Your task to perform on an android device: Play the last video I watched on Youtube Image 0: 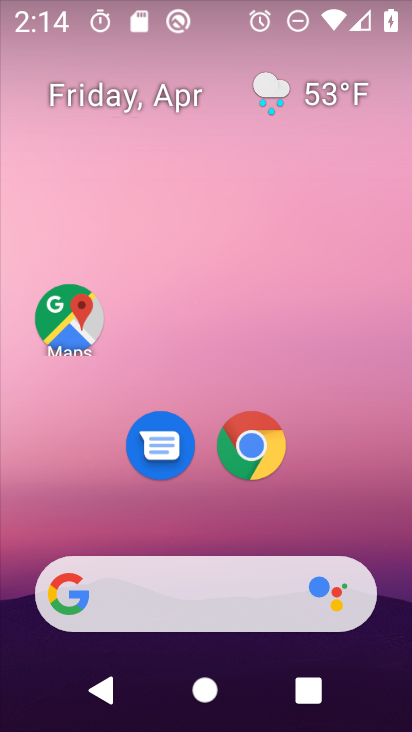
Step 0: drag from (355, 511) to (373, 120)
Your task to perform on an android device: Play the last video I watched on Youtube Image 1: 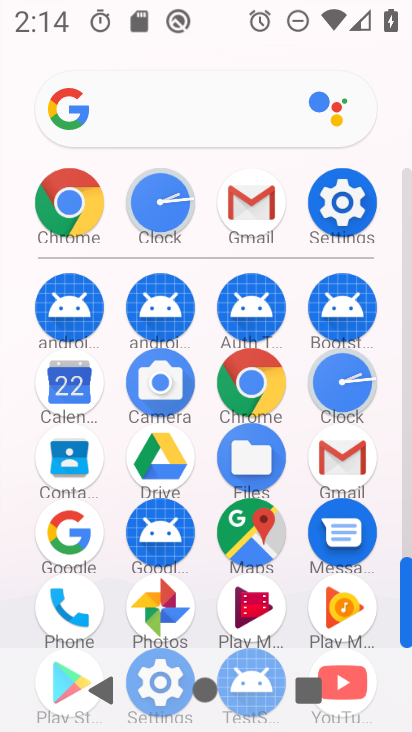
Step 1: drag from (392, 528) to (403, 269)
Your task to perform on an android device: Play the last video I watched on Youtube Image 2: 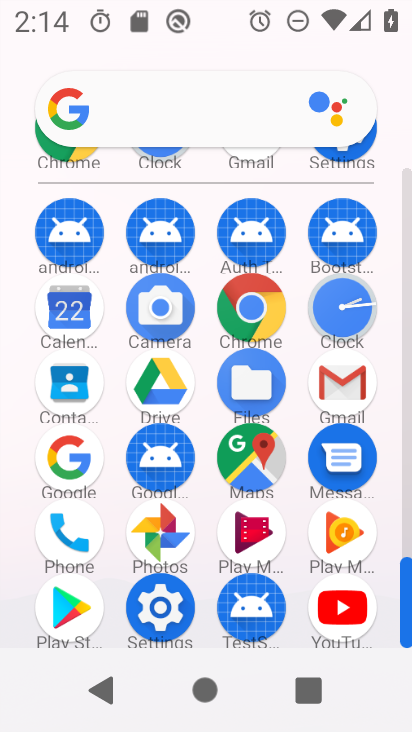
Step 2: click (351, 613)
Your task to perform on an android device: Play the last video I watched on Youtube Image 3: 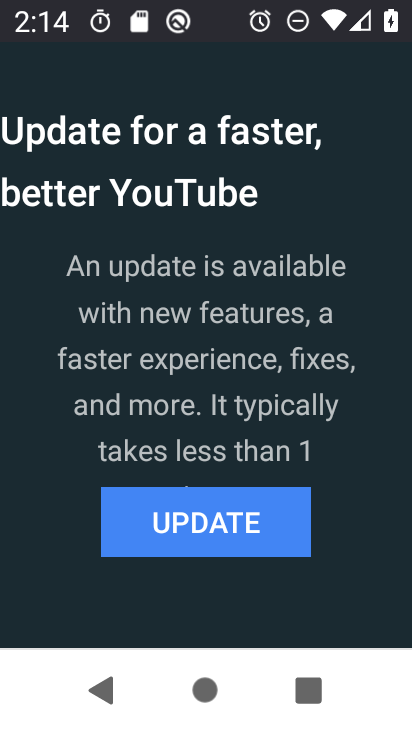
Step 3: click (239, 545)
Your task to perform on an android device: Play the last video I watched on Youtube Image 4: 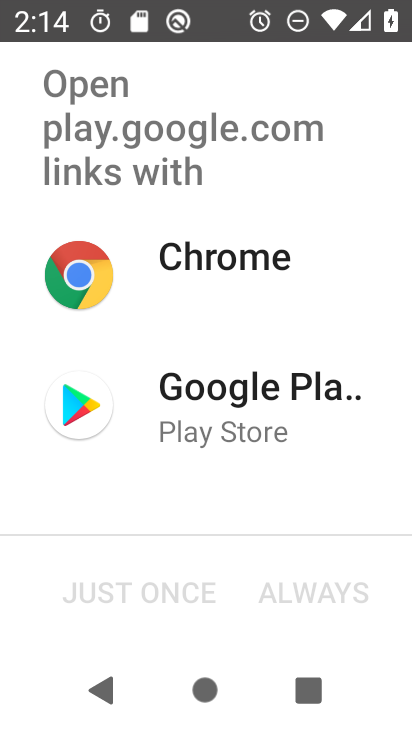
Step 4: click (248, 429)
Your task to perform on an android device: Play the last video I watched on Youtube Image 5: 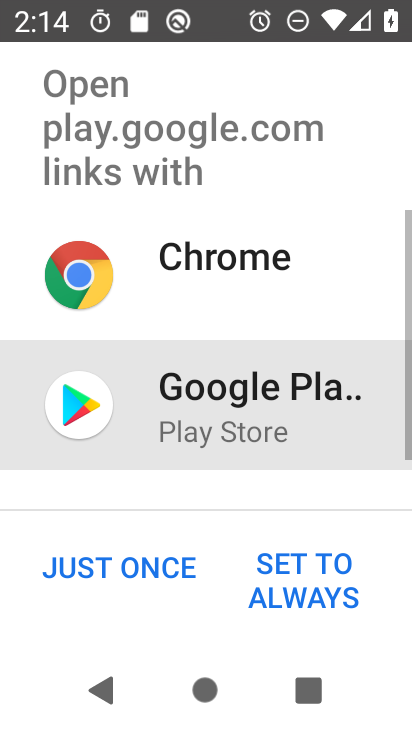
Step 5: click (180, 561)
Your task to perform on an android device: Play the last video I watched on Youtube Image 6: 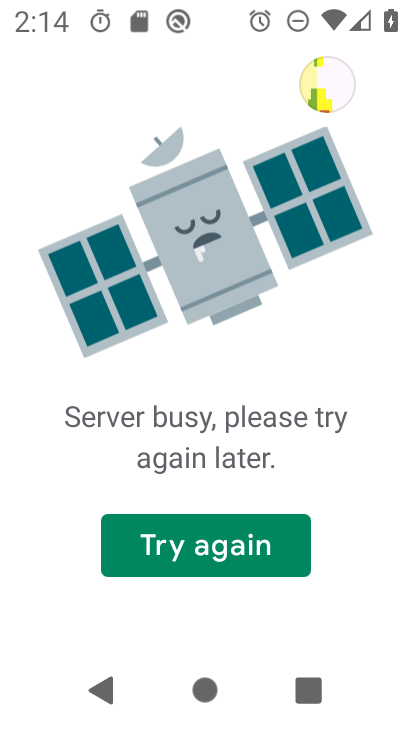
Step 6: task complete